Your task to perform on an android device: Go to wifi settings Image 0: 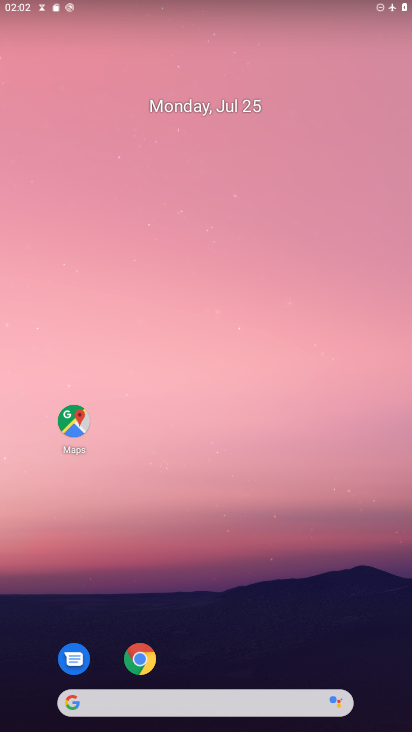
Step 0: drag from (214, 659) to (212, 160)
Your task to perform on an android device: Go to wifi settings Image 1: 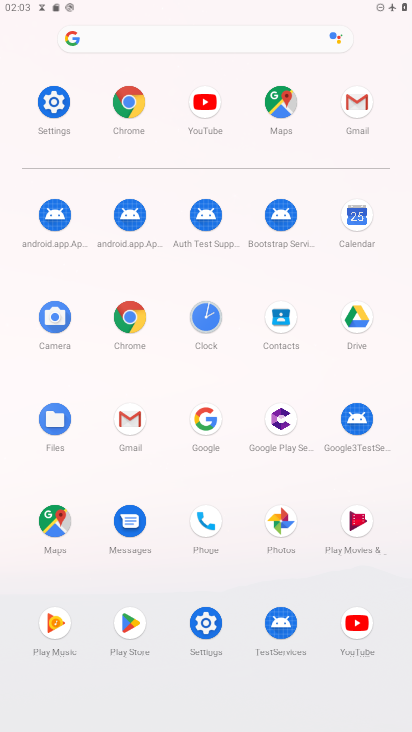
Step 1: click (57, 105)
Your task to perform on an android device: Go to wifi settings Image 2: 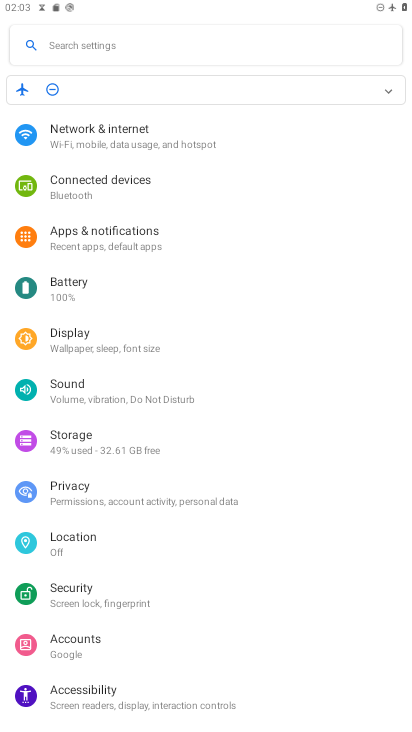
Step 2: click (73, 128)
Your task to perform on an android device: Go to wifi settings Image 3: 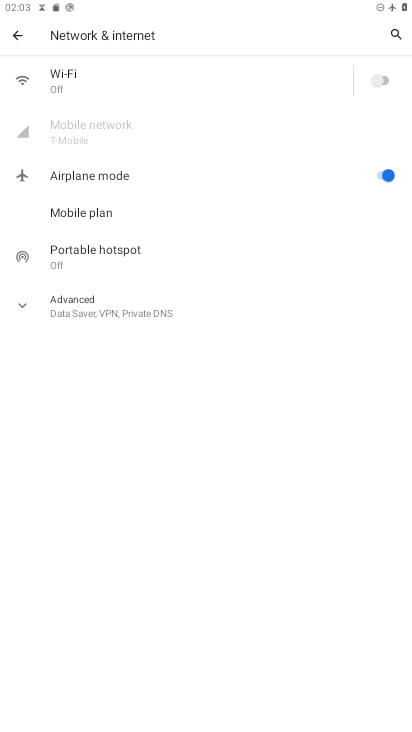
Step 3: click (102, 75)
Your task to perform on an android device: Go to wifi settings Image 4: 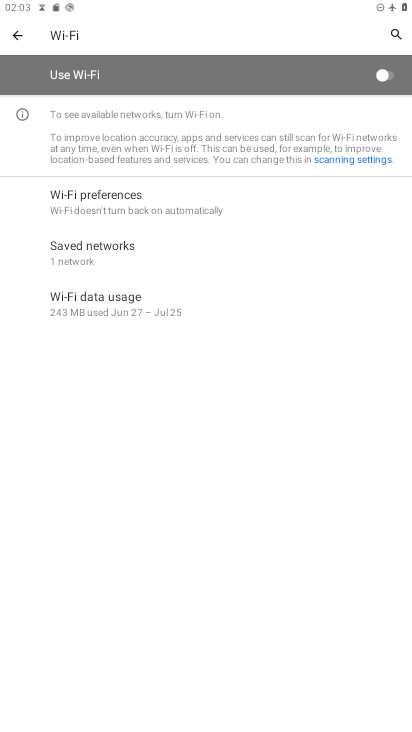
Step 4: task complete